Your task to perform on an android device: What's the weather? Image 0: 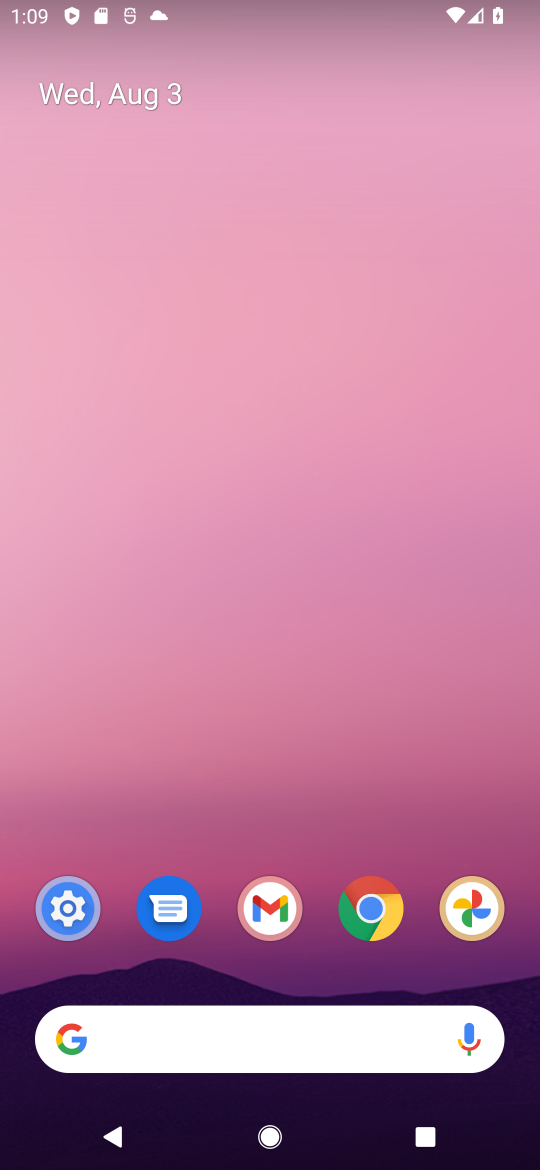
Step 0: click (274, 1027)
Your task to perform on an android device: What's the weather? Image 1: 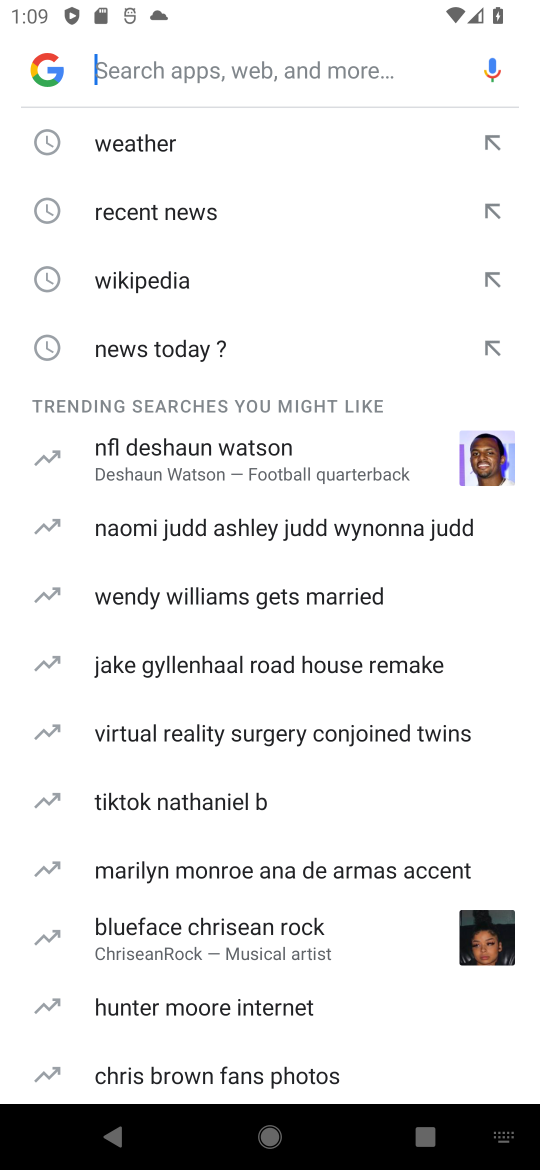
Step 1: click (144, 149)
Your task to perform on an android device: What's the weather? Image 2: 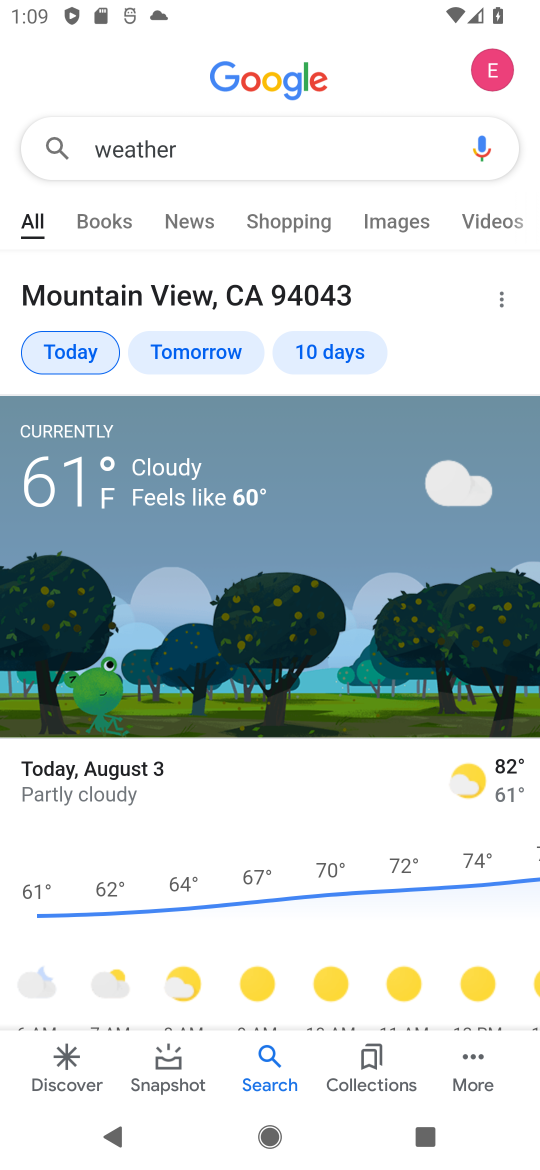
Step 2: task complete